Your task to perform on an android device: stop showing notifications on the lock screen Image 0: 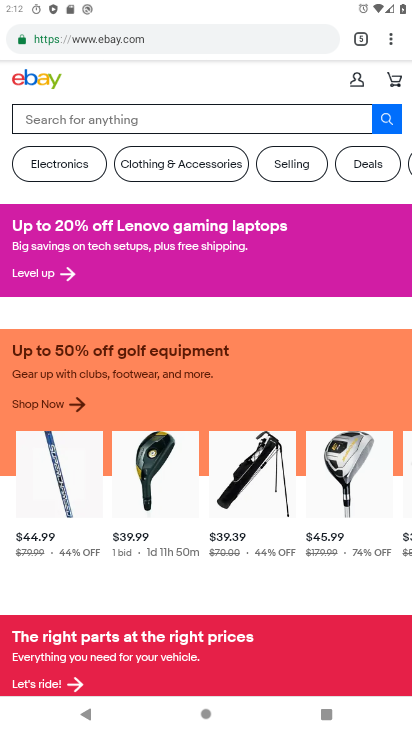
Step 0: press home button
Your task to perform on an android device: stop showing notifications on the lock screen Image 1: 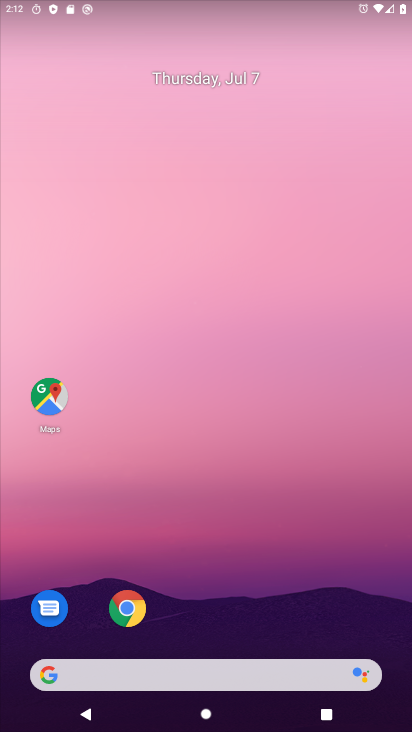
Step 1: drag from (250, 707) to (241, 144)
Your task to perform on an android device: stop showing notifications on the lock screen Image 2: 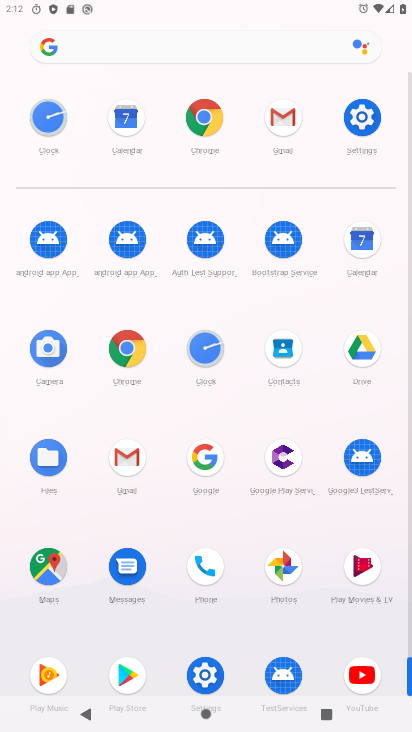
Step 2: click (360, 117)
Your task to perform on an android device: stop showing notifications on the lock screen Image 3: 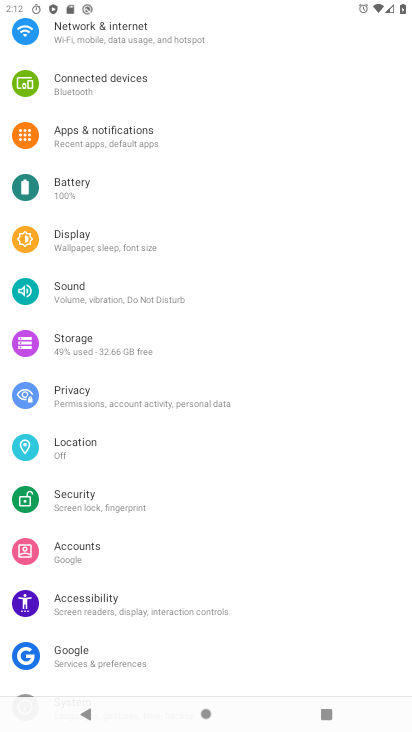
Step 3: click (126, 135)
Your task to perform on an android device: stop showing notifications on the lock screen Image 4: 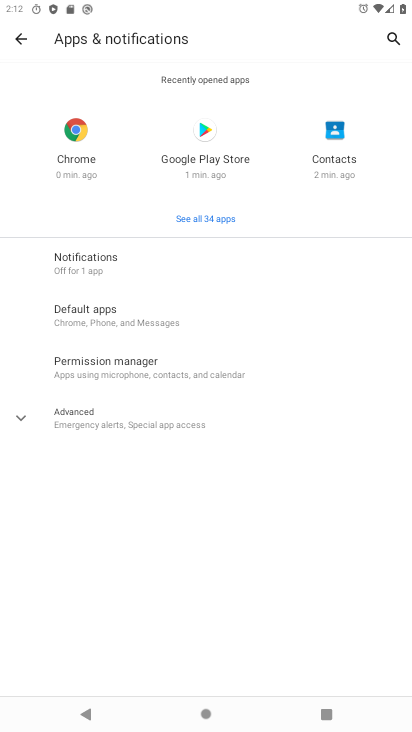
Step 4: click (90, 259)
Your task to perform on an android device: stop showing notifications on the lock screen Image 5: 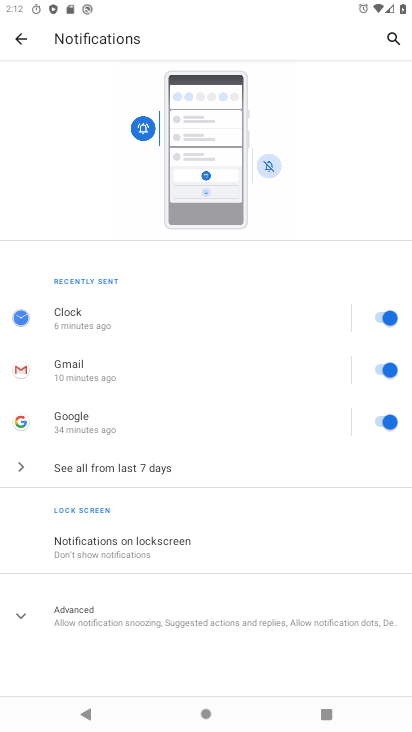
Step 5: click (136, 547)
Your task to perform on an android device: stop showing notifications on the lock screen Image 6: 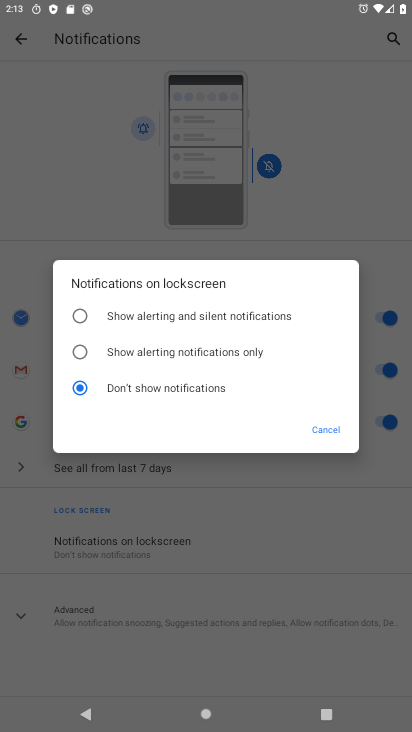
Step 6: click (326, 427)
Your task to perform on an android device: stop showing notifications on the lock screen Image 7: 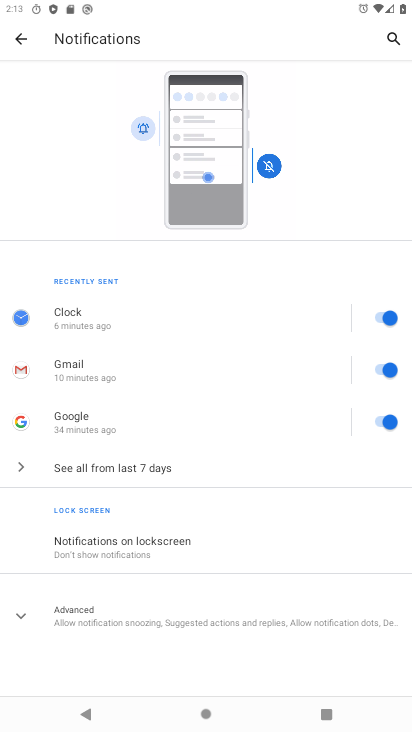
Step 7: task complete